Your task to perform on an android device: Open Wikipedia Image 0: 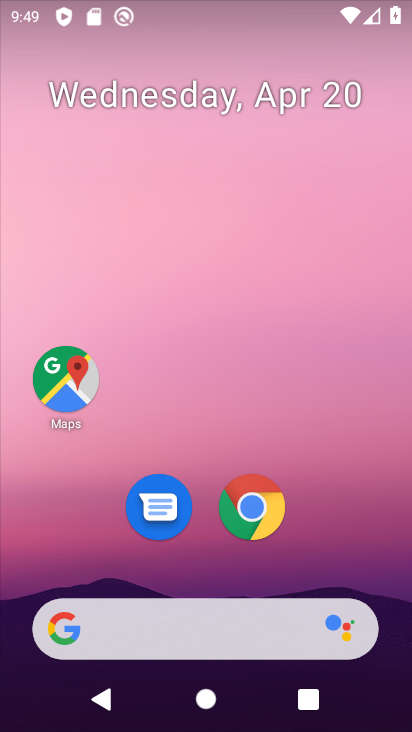
Step 0: click (261, 495)
Your task to perform on an android device: Open Wikipedia Image 1: 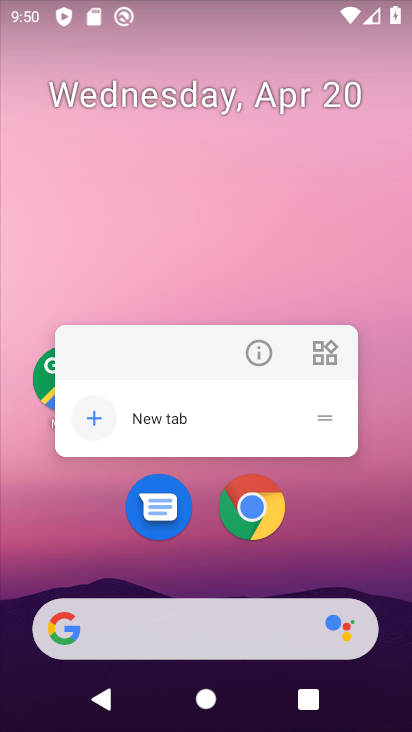
Step 1: click (248, 504)
Your task to perform on an android device: Open Wikipedia Image 2: 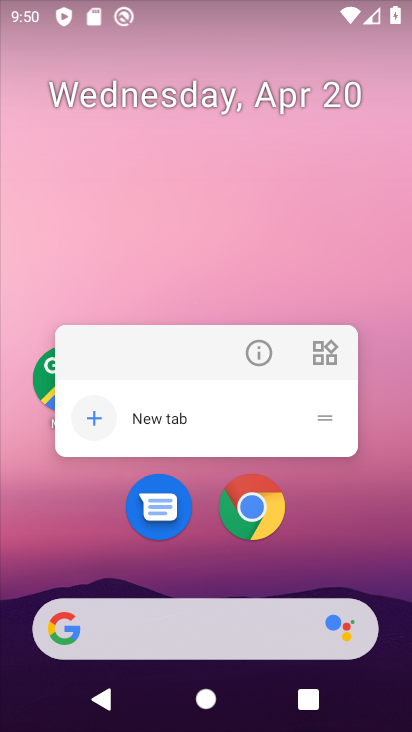
Step 2: click (248, 504)
Your task to perform on an android device: Open Wikipedia Image 3: 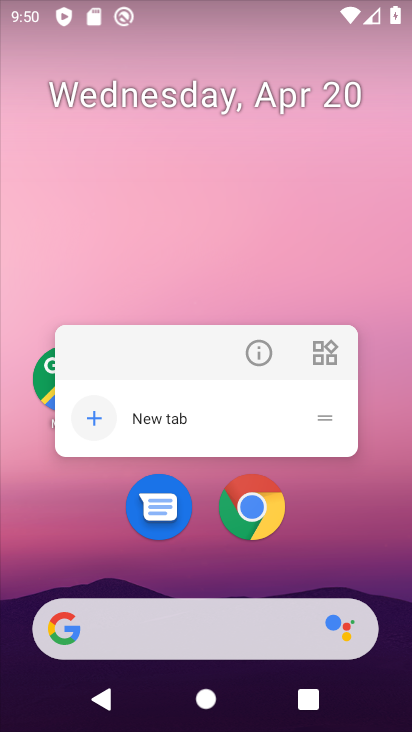
Step 3: click (258, 361)
Your task to perform on an android device: Open Wikipedia Image 4: 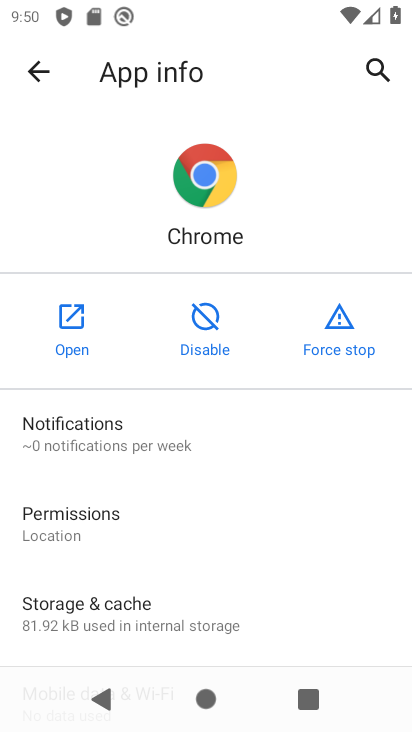
Step 4: click (79, 338)
Your task to perform on an android device: Open Wikipedia Image 5: 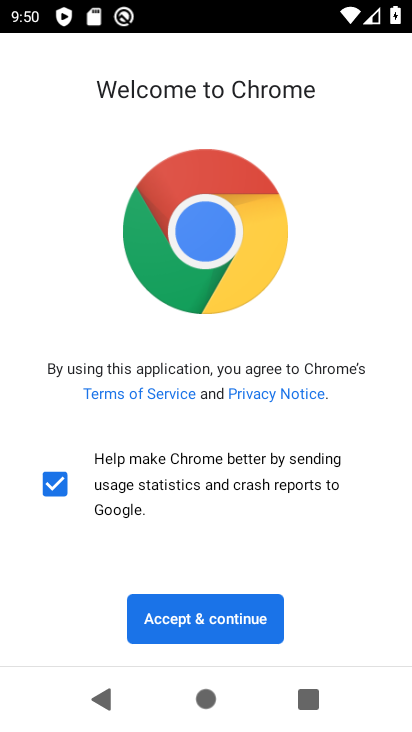
Step 5: click (179, 623)
Your task to perform on an android device: Open Wikipedia Image 6: 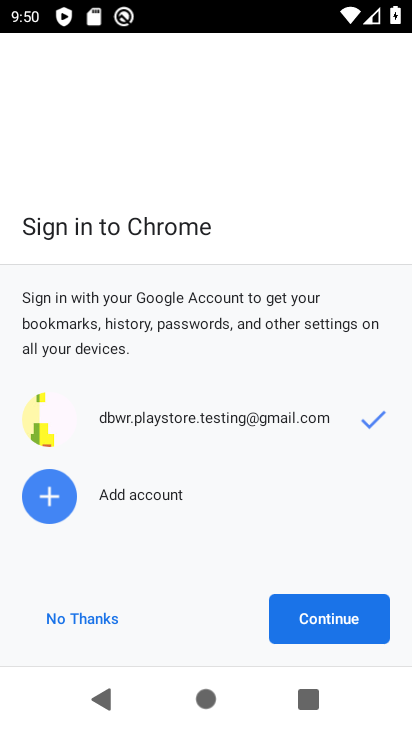
Step 6: click (334, 618)
Your task to perform on an android device: Open Wikipedia Image 7: 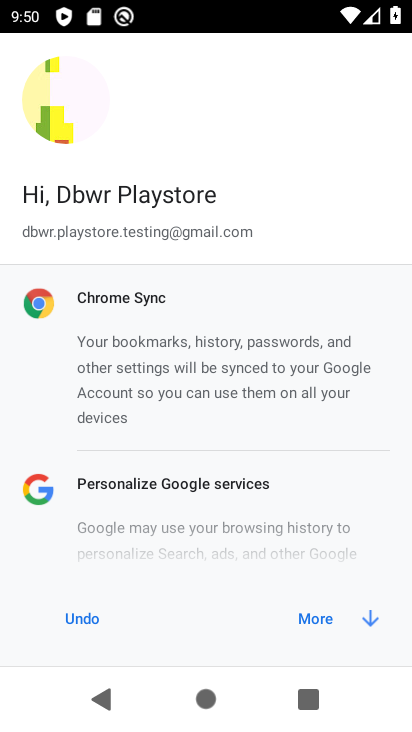
Step 7: click (316, 619)
Your task to perform on an android device: Open Wikipedia Image 8: 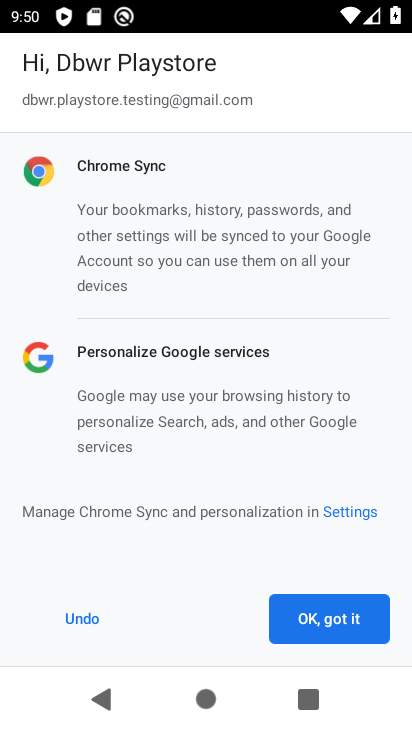
Step 8: click (316, 619)
Your task to perform on an android device: Open Wikipedia Image 9: 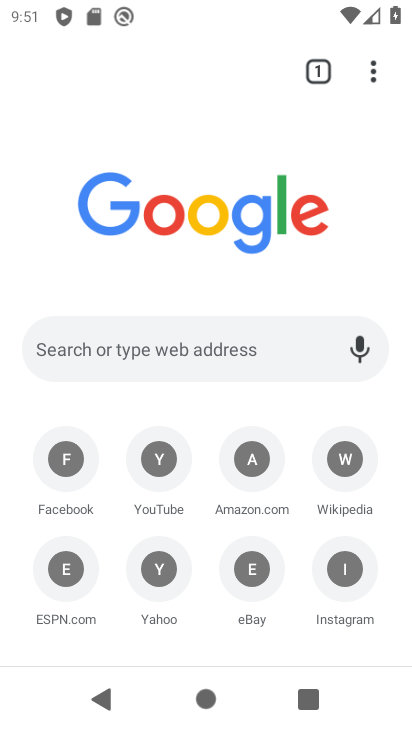
Step 9: click (140, 71)
Your task to perform on an android device: Open Wikipedia Image 10: 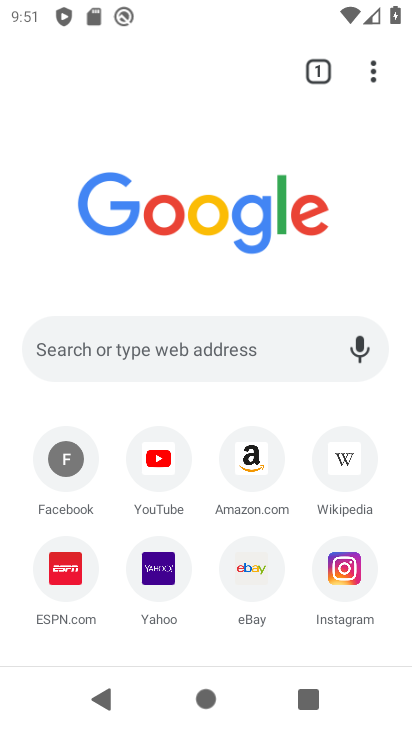
Step 10: click (158, 351)
Your task to perform on an android device: Open Wikipedia Image 11: 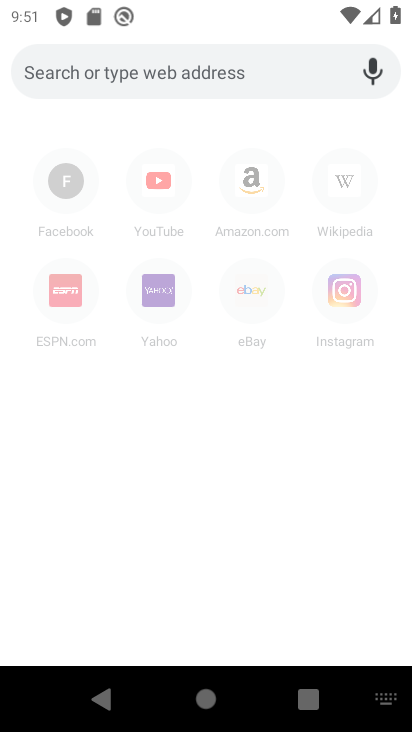
Step 11: type "wikipedia"
Your task to perform on an android device: Open Wikipedia Image 12: 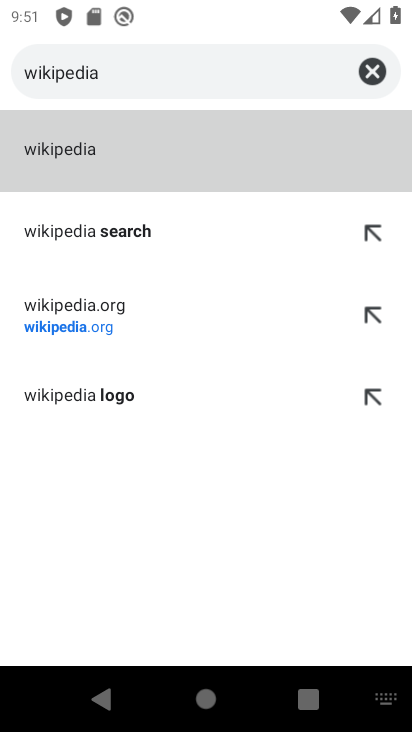
Step 12: click (109, 323)
Your task to perform on an android device: Open Wikipedia Image 13: 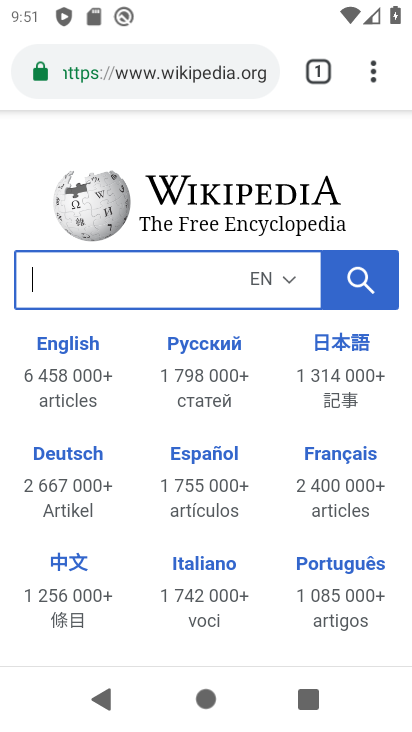
Step 13: task complete